Your task to perform on an android device: See recent photos Image 0: 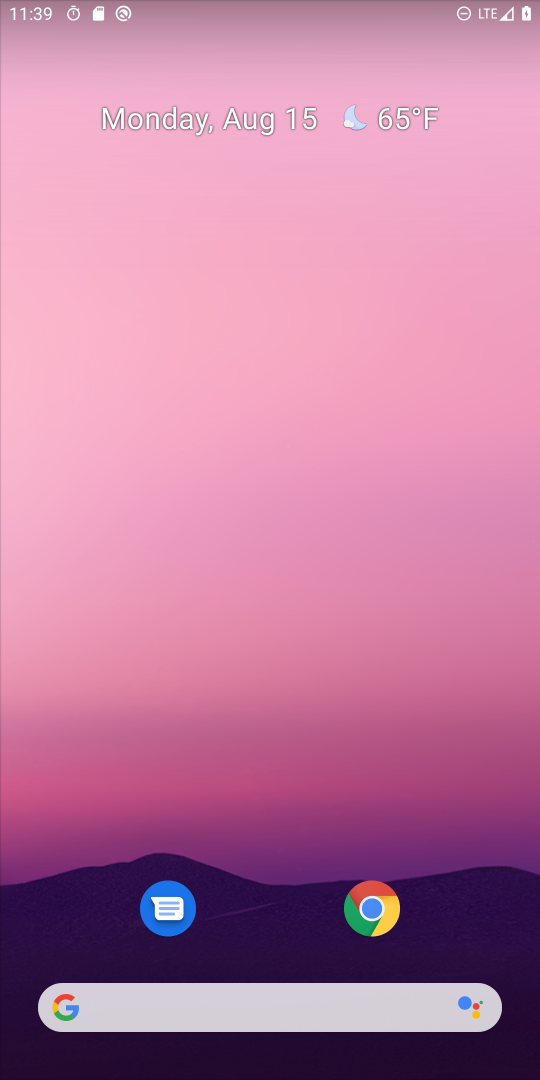
Step 0: drag from (279, 892) to (250, 69)
Your task to perform on an android device: See recent photos Image 1: 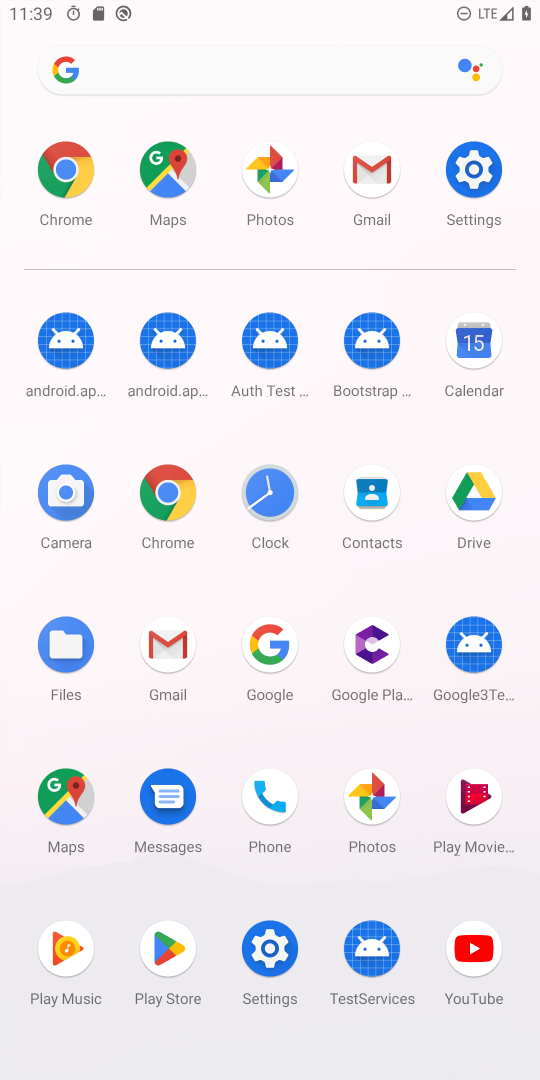
Step 1: click (245, 182)
Your task to perform on an android device: See recent photos Image 2: 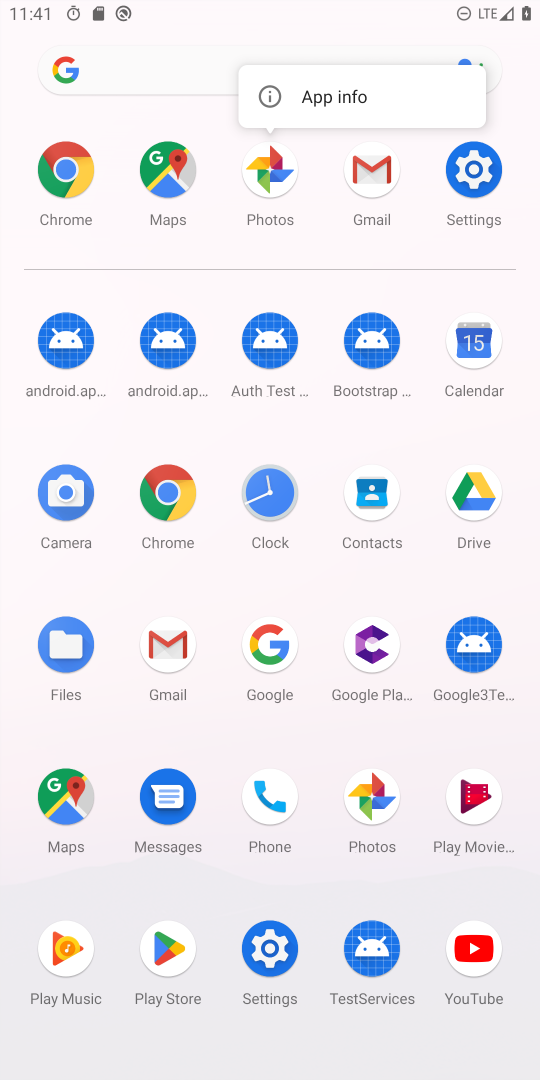
Step 2: click (271, 160)
Your task to perform on an android device: See recent photos Image 3: 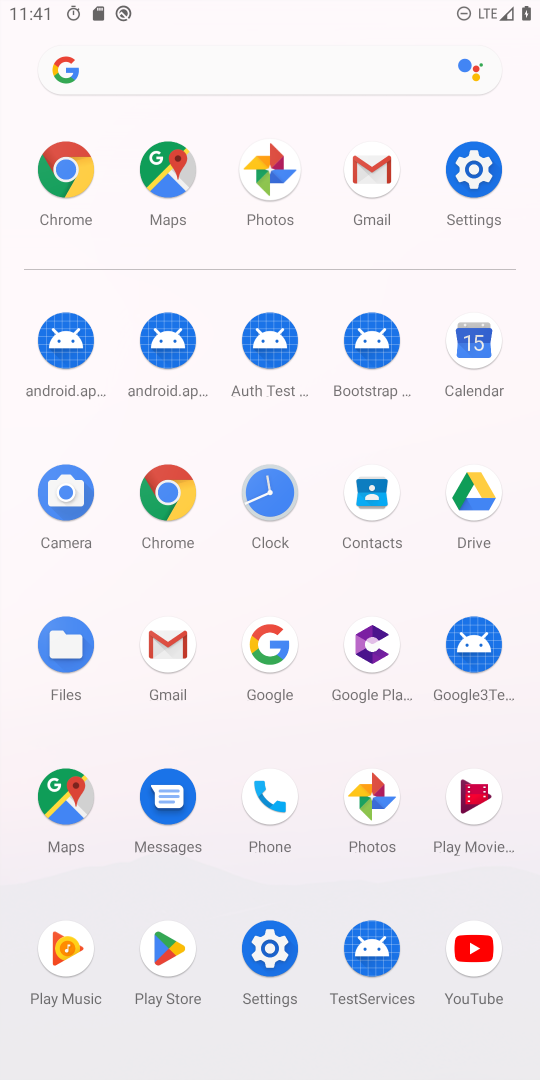
Step 3: click (271, 160)
Your task to perform on an android device: See recent photos Image 4: 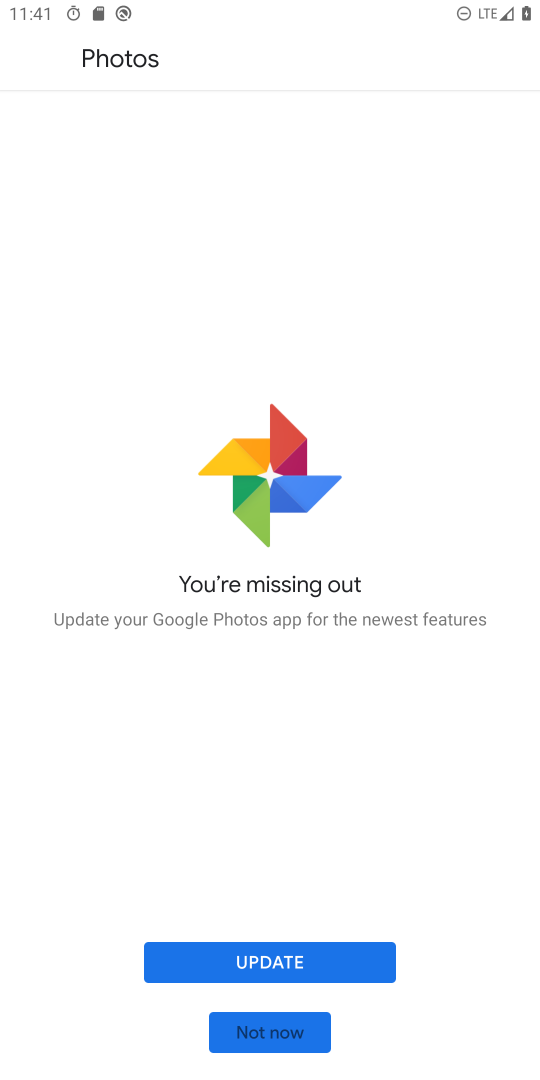
Step 4: click (264, 1031)
Your task to perform on an android device: See recent photos Image 5: 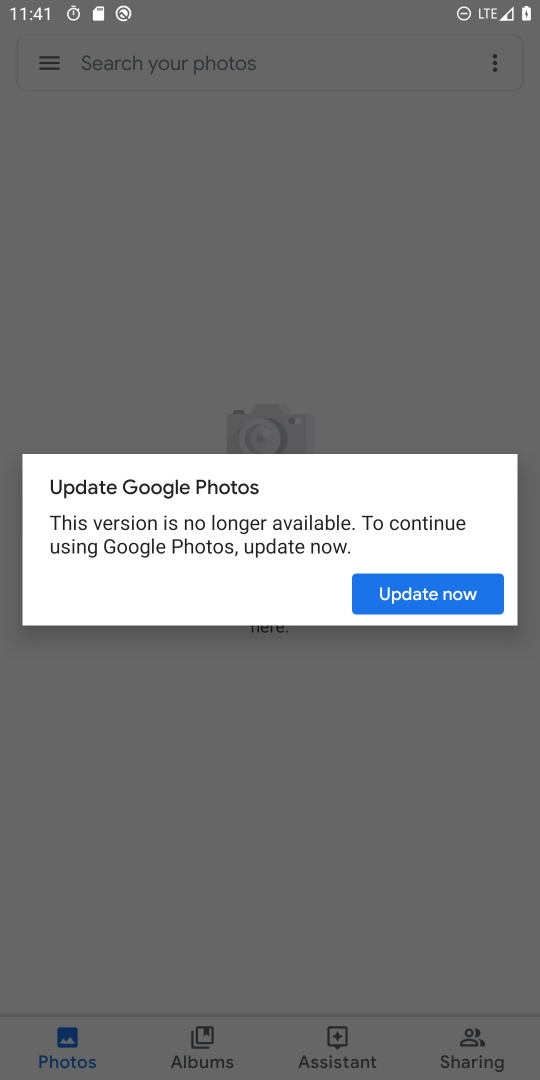
Step 5: click (434, 590)
Your task to perform on an android device: See recent photos Image 6: 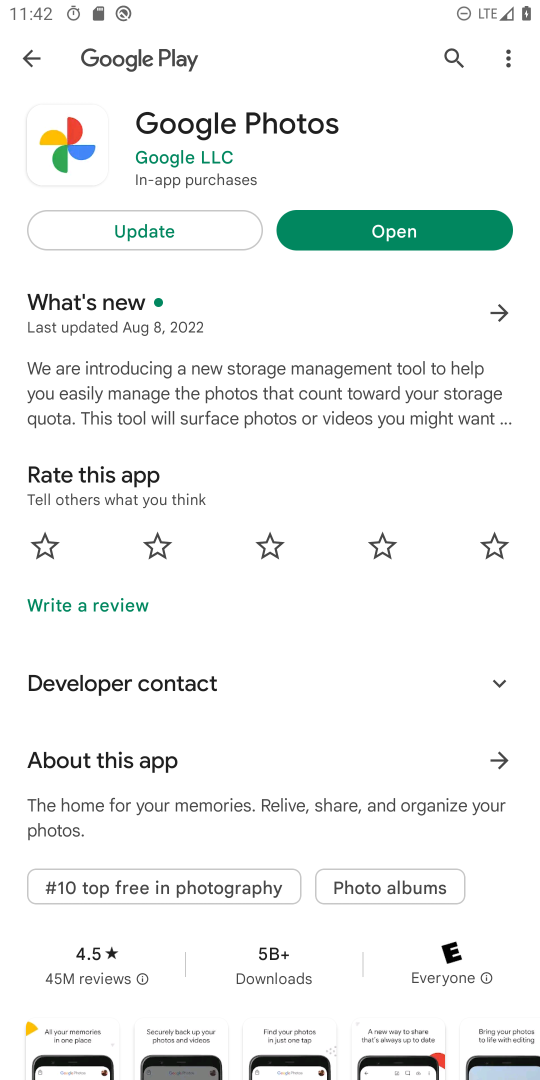
Step 6: click (401, 237)
Your task to perform on an android device: See recent photos Image 7: 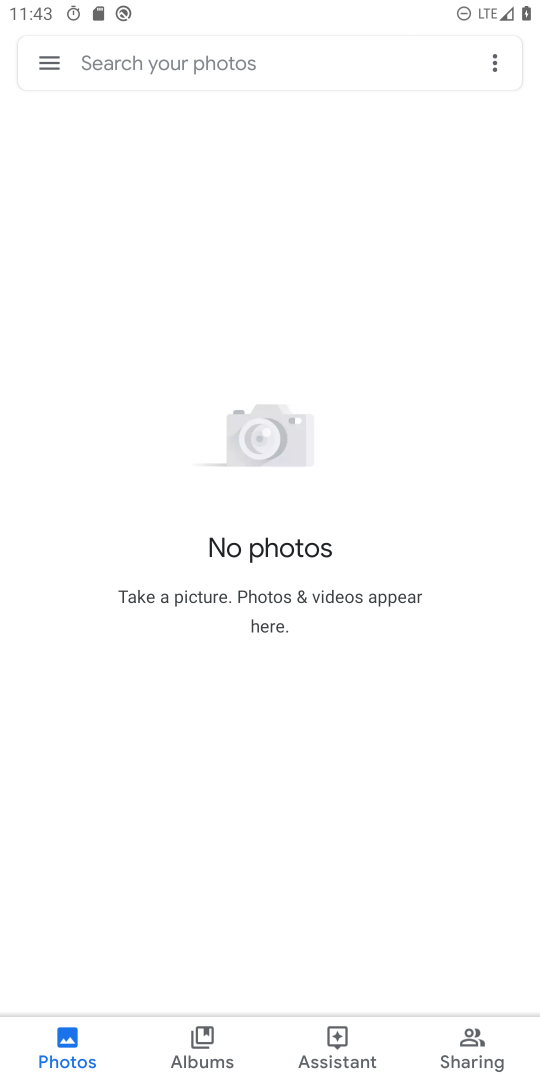
Step 7: task complete